Your task to perform on an android device: toggle improve location accuracy Image 0: 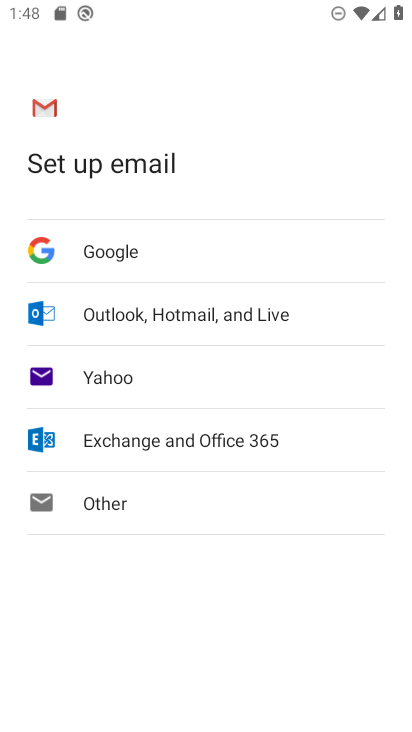
Step 0: press home button
Your task to perform on an android device: toggle improve location accuracy Image 1: 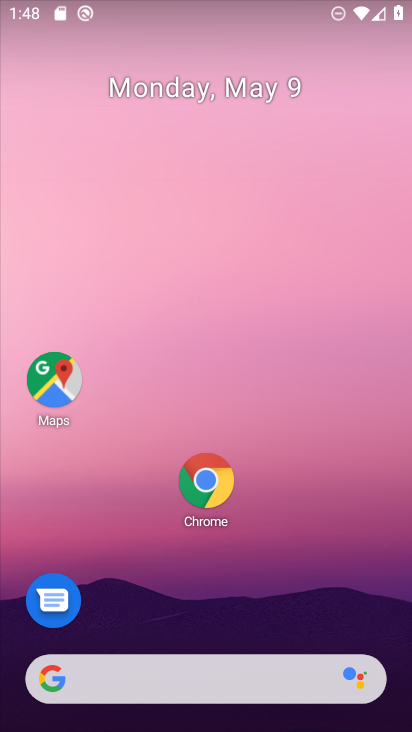
Step 1: drag from (167, 659) to (272, 70)
Your task to perform on an android device: toggle improve location accuracy Image 2: 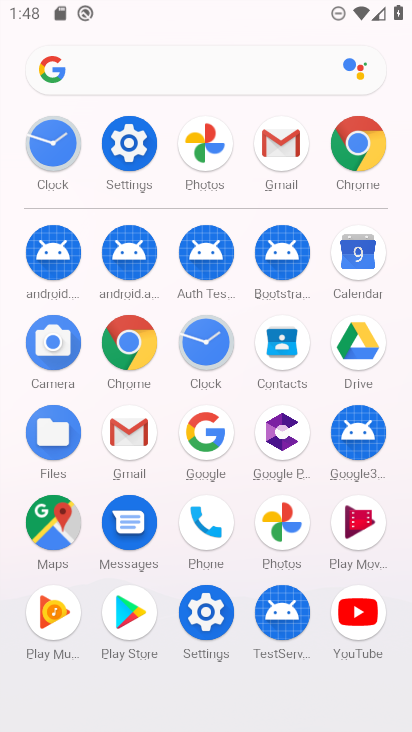
Step 2: click (121, 141)
Your task to perform on an android device: toggle improve location accuracy Image 3: 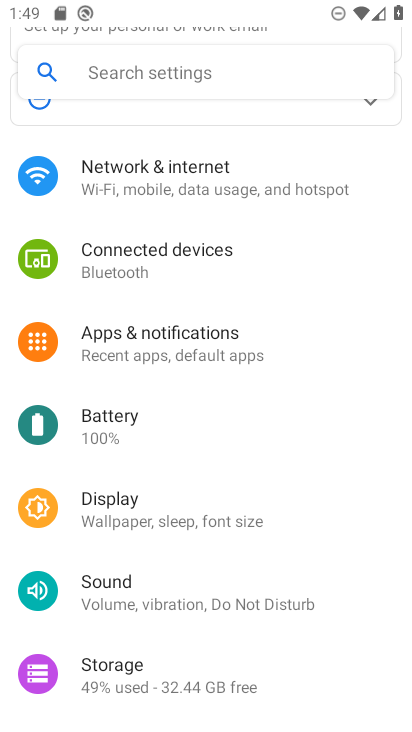
Step 3: drag from (126, 588) to (237, 211)
Your task to perform on an android device: toggle improve location accuracy Image 4: 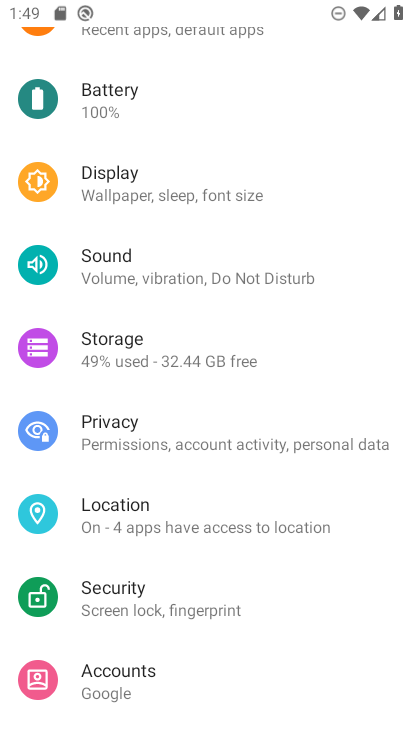
Step 4: click (116, 511)
Your task to perform on an android device: toggle improve location accuracy Image 5: 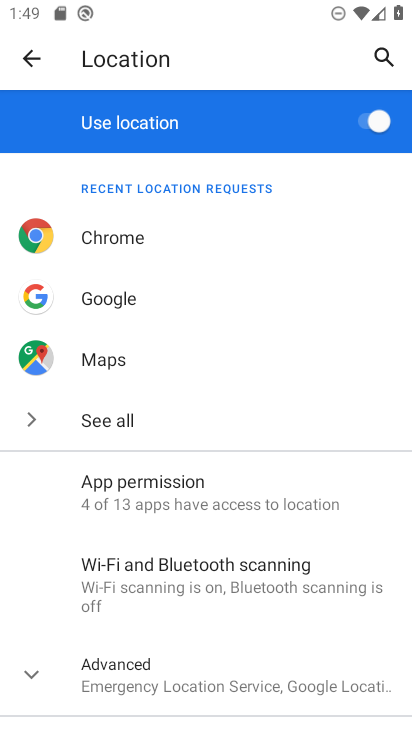
Step 5: drag from (171, 629) to (273, 261)
Your task to perform on an android device: toggle improve location accuracy Image 6: 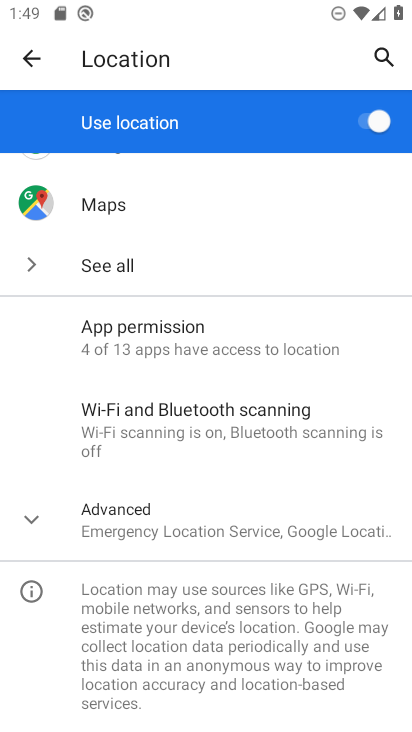
Step 6: click (157, 510)
Your task to perform on an android device: toggle improve location accuracy Image 7: 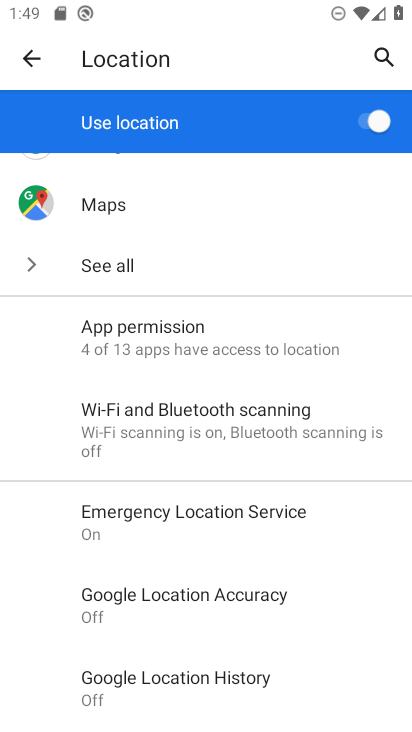
Step 7: click (138, 604)
Your task to perform on an android device: toggle improve location accuracy Image 8: 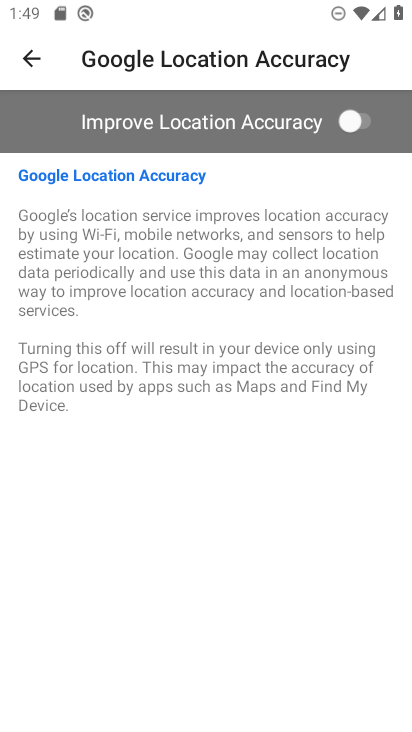
Step 8: click (364, 124)
Your task to perform on an android device: toggle improve location accuracy Image 9: 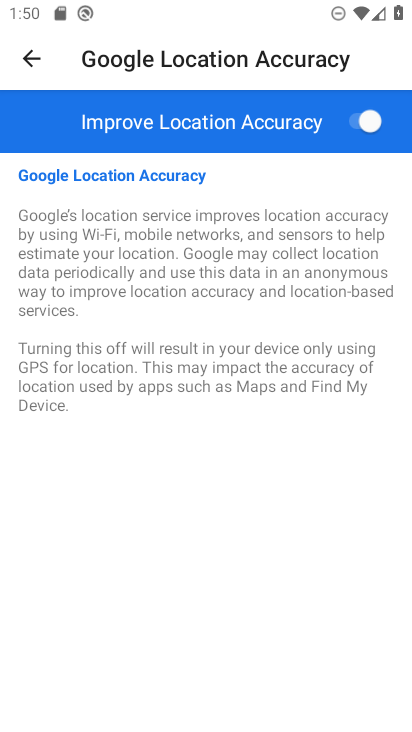
Step 9: task complete